Your task to perform on an android device: add a contact Image 0: 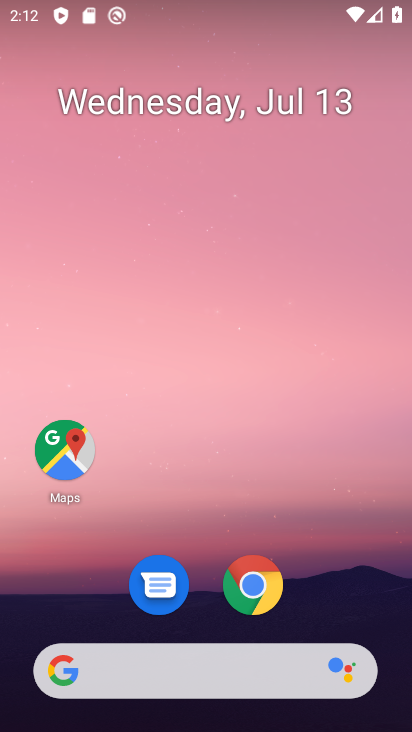
Step 0: press home button
Your task to perform on an android device: add a contact Image 1: 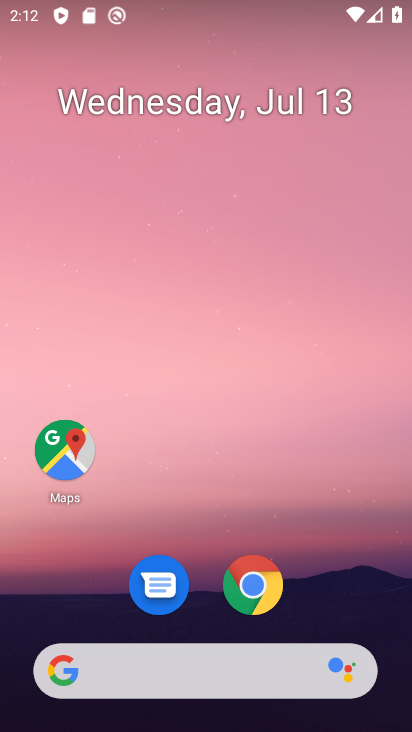
Step 1: drag from (192, 651) to (194, 157)
Your task to perform on an android device: add a contact Image 2: 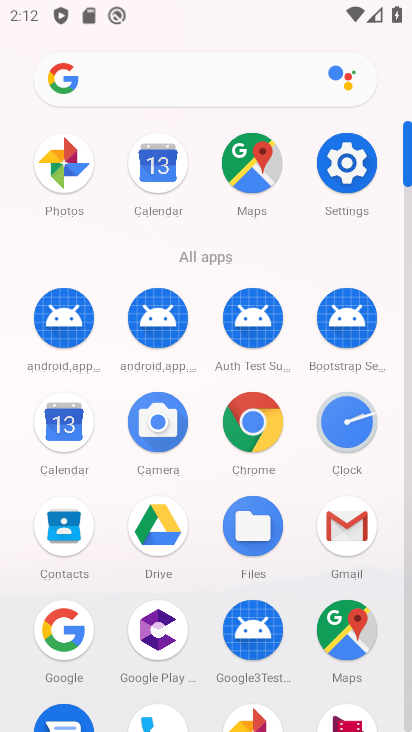
Step 2: drag from (227, 619) to (226, 286)
Your task to perform on an android device: add a contact Image 3: 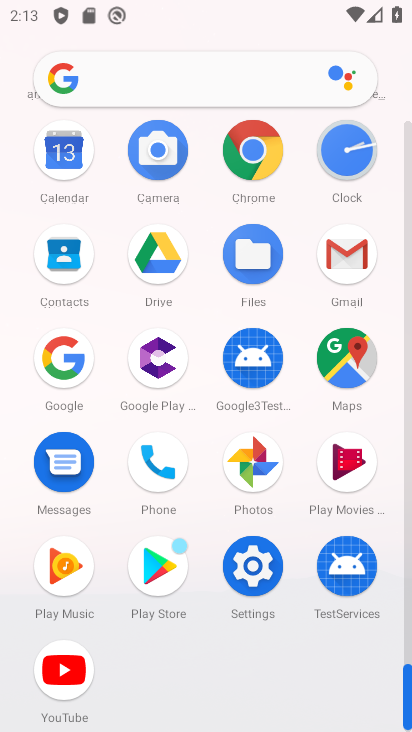
Step 3: click (67, 253)
Your task to perform on an android device: add a contact Image 4: 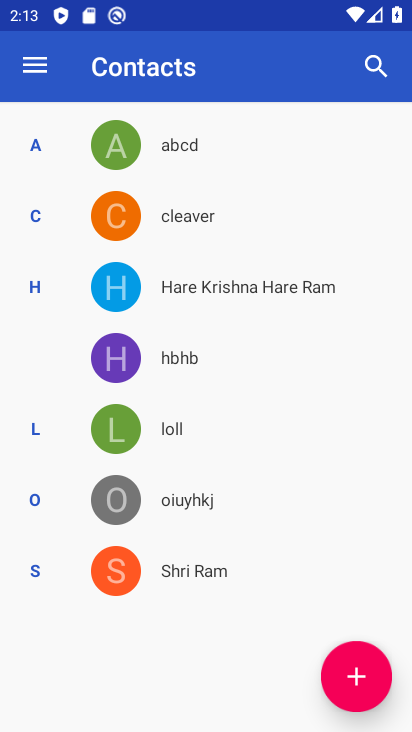
Step 4: click (349, 678)
Your task to perform on an android device: add a contact Image 5: 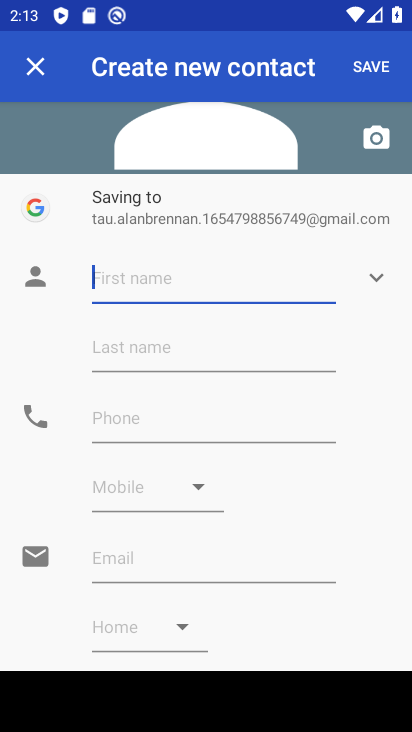
Step 5: click (92, 270)
Your task to perform on an android device: add a contact Image 6: 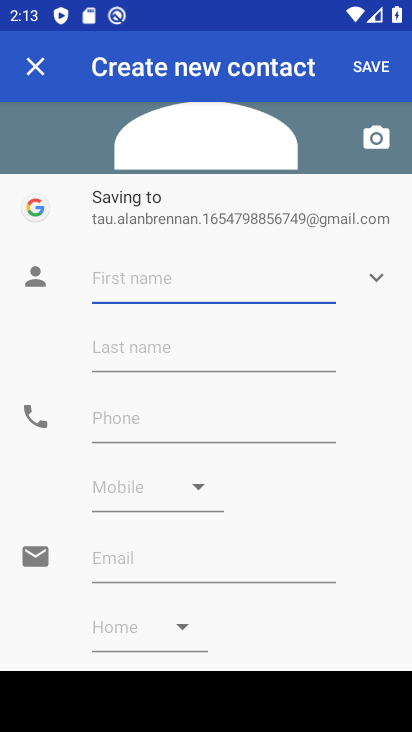
Step 6: type "btgfhhuyy"
Your task to perform on an android device: add a contact Image 7: 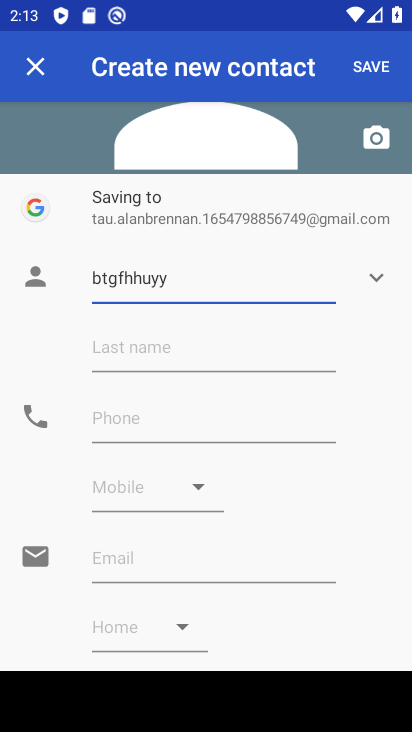
Step 7: click (112, 413)
Your task to perform on an android device: add a contact Image 8: 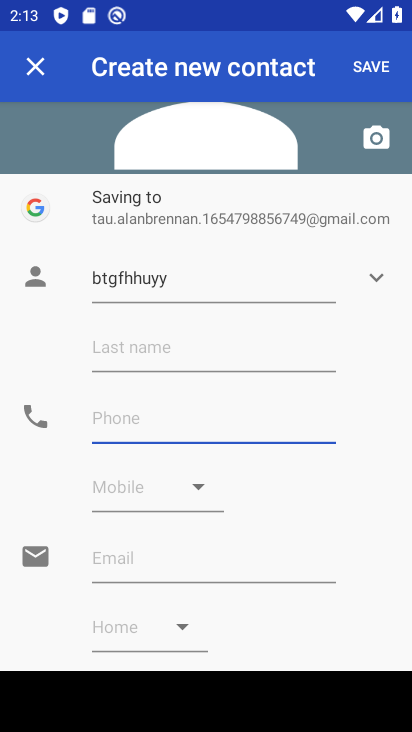
Step 8: type "09876876787"
Your task to perform on an android device: add a contact Image 9: 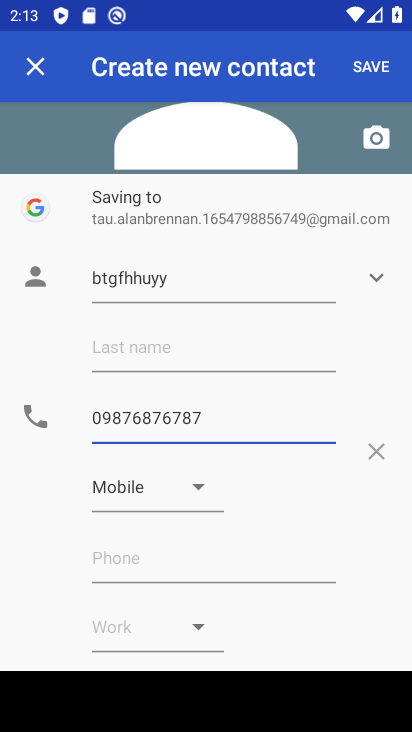
Step 9: click (382, 62)
Your task to perform on an android device: add a contact Image 10: 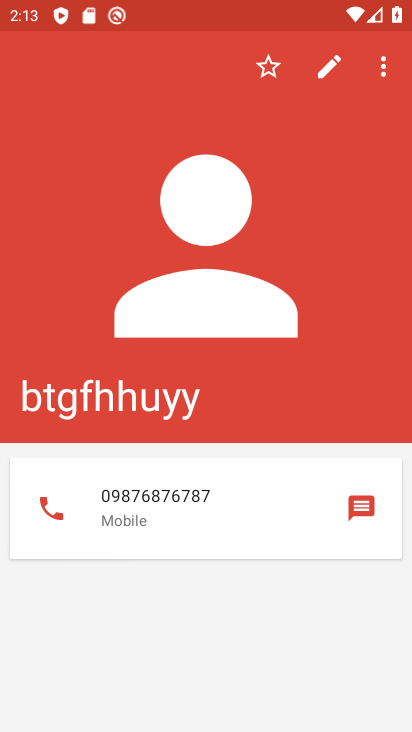
Step 10: task complete